Your task to perform on an android device: change the clock display to show seconds Image 0: 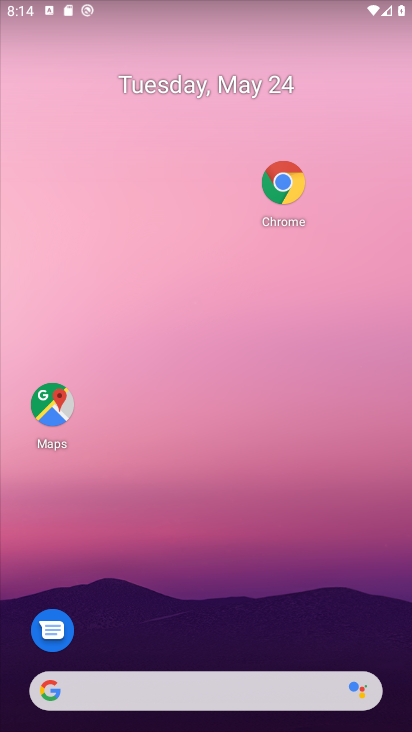
Step 0: drag from (249, 707) to (230, 166)
Your task to perform on an android device: change the clock display to show seconds Image 1: 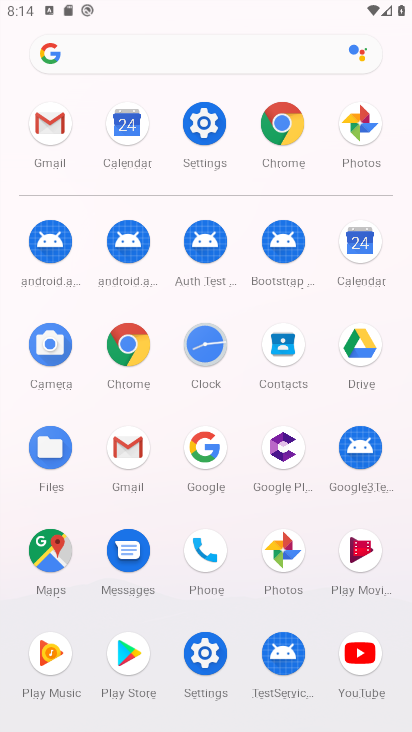
Step 1: click (222, 344)
Your task to perform on an android device: change the clock display to show seconds Image 2: 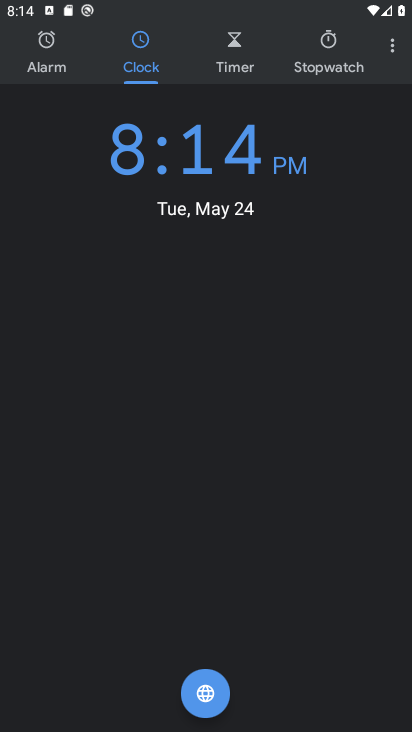
Step 2: click (392, 52)
Your task to perform on an android device: change the clock display to show seconds Image 3: 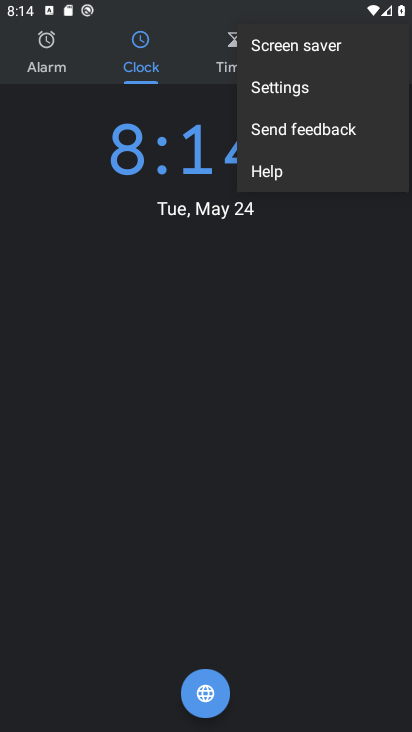
Step 3: click (323, 94)
Your task to perform on an android device: change the clock display to show seconds Image 4: 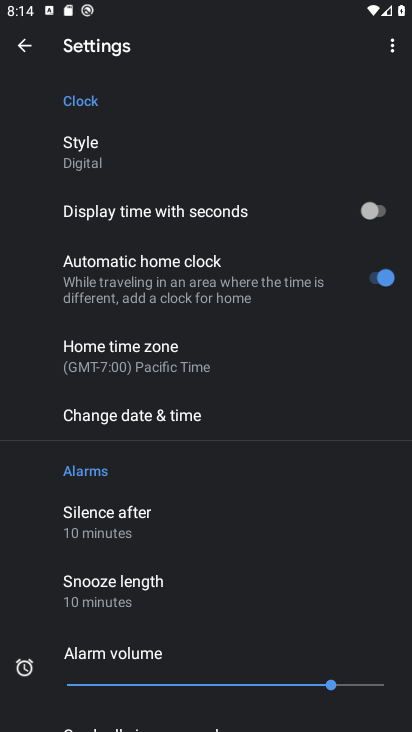
Step 4: click (367, 228)
Your task to perform on an android device: change the clock display to show seconds Image 5: 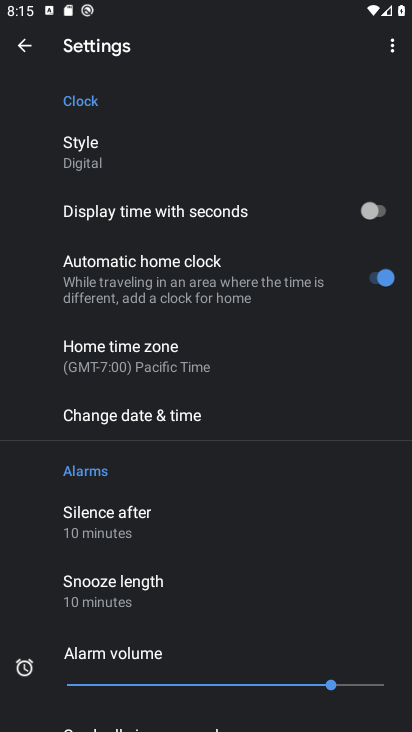
Step 5: click (357, 200)
Your task to perform on an android device: change the clock display to show seconds Image 6: 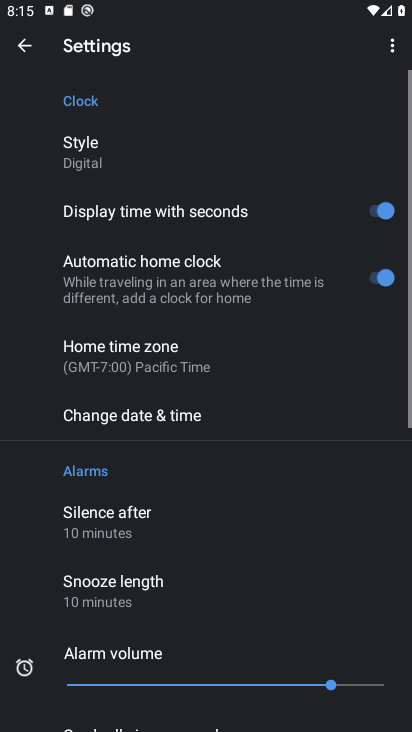
Step 6: task complete